Your task to perform on an android device: turn off improve location accuracy Image 0: 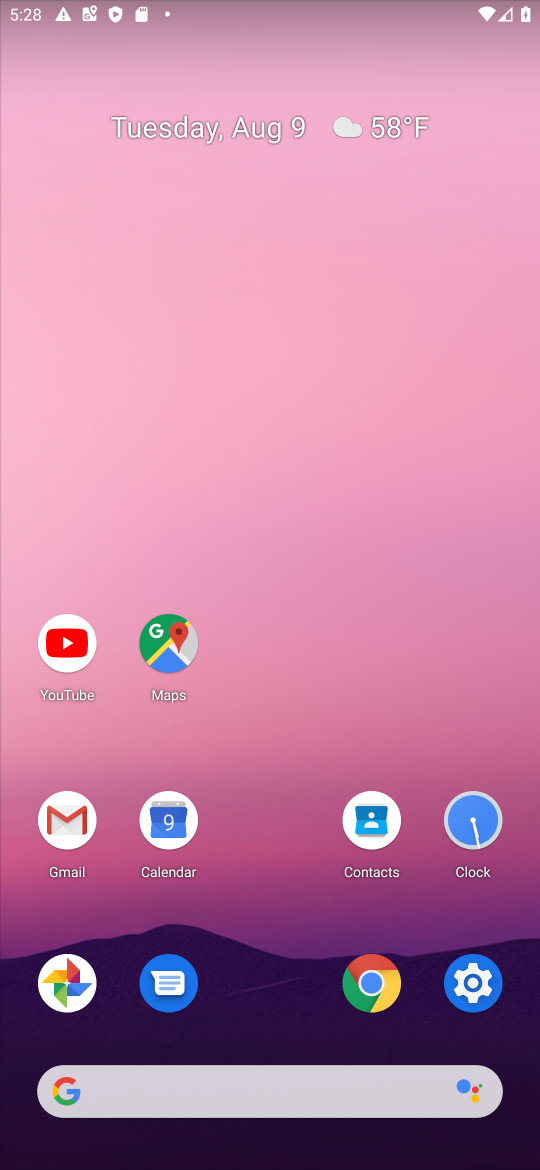
Step 0: click (470, 985)
Your task to perform on an android device: turn off improve location accuracy Image 1: 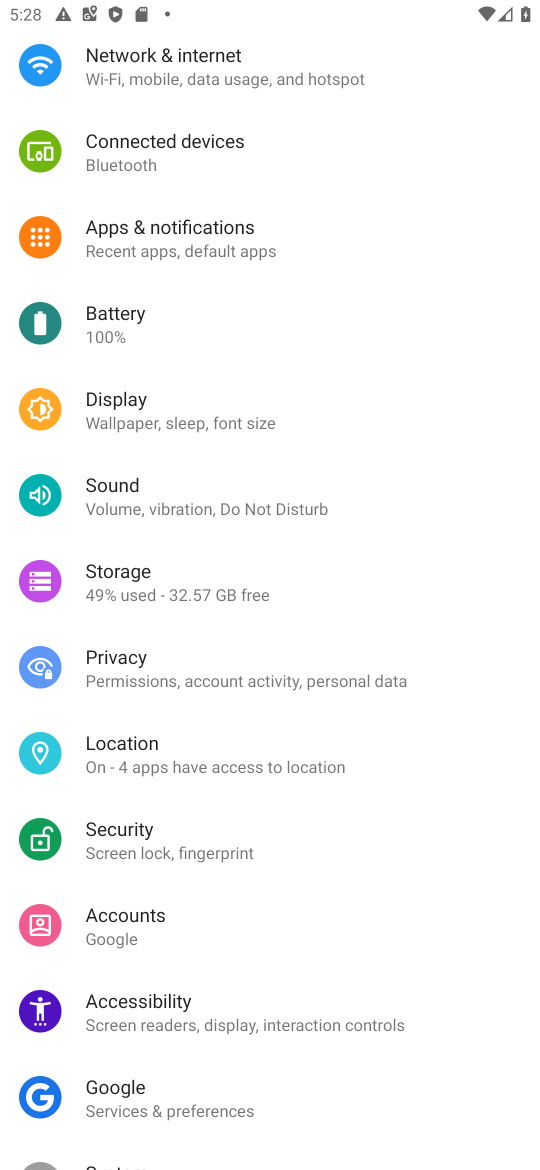
Step 1: click (130, 744)
Your task to perform on an android device: turn off improve location accuracy Image 2: 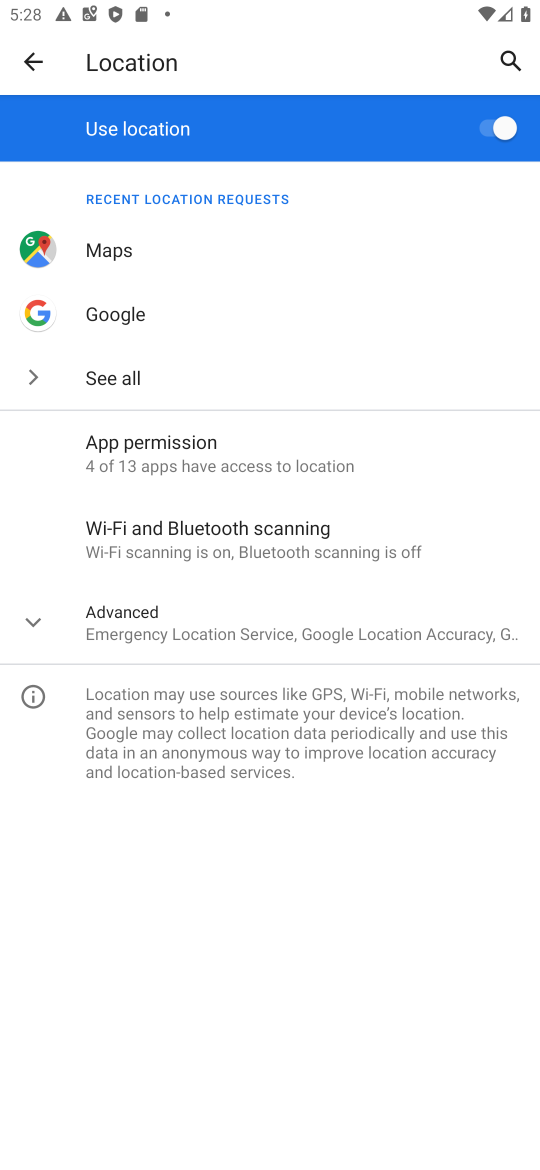
Step 2: click (33, 616)
Your task to perform on an android device: turn off improve location accuracy Image 3: 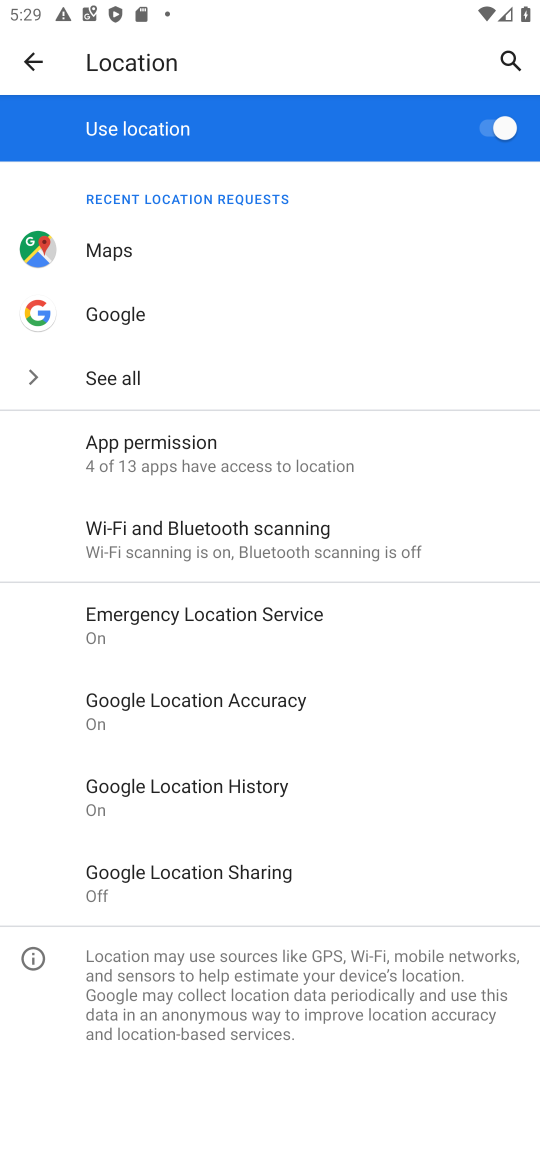
Step 3: click (188, 701)
Your task to perform on an android device: turn off improve location accuracy Image 4: 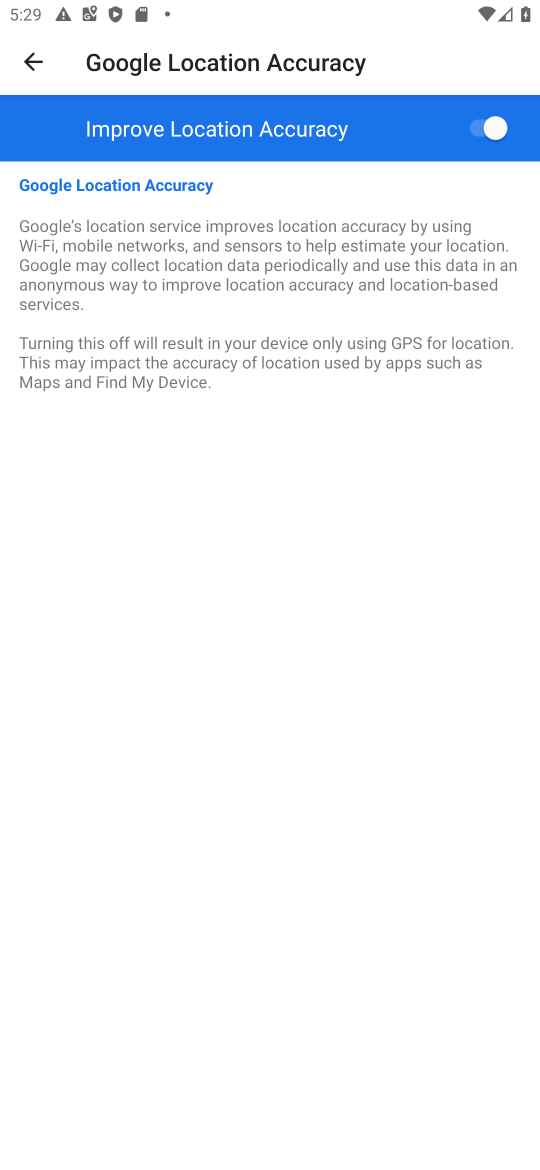
Step 4: click (492, 128)
Your task to perform on an android device: turn off improve location accuracy Image 5: 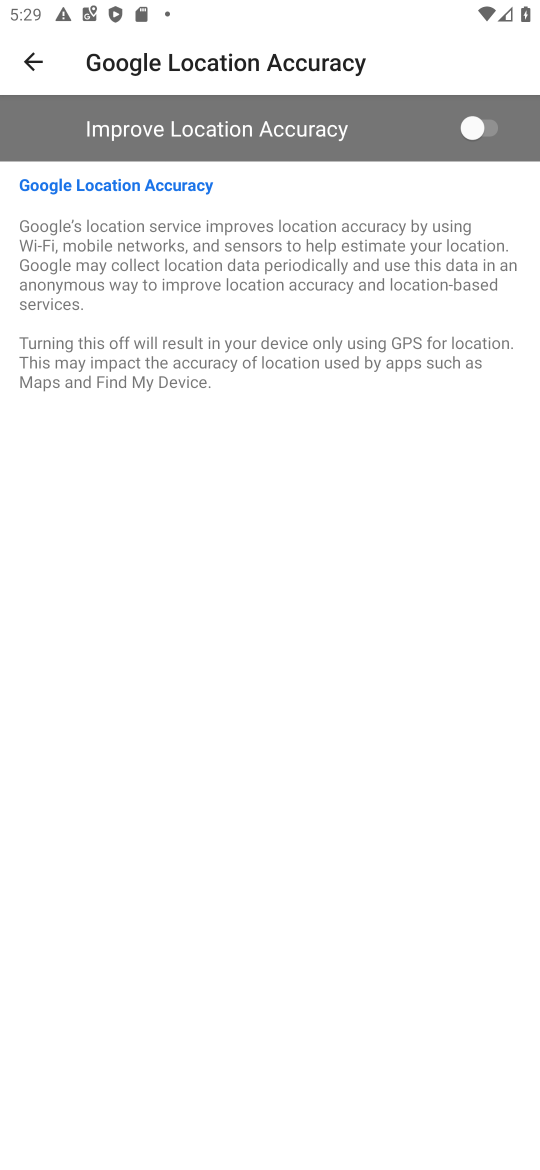
Step 5: task complete